Your task to perform on an android device: Open calendar and show me the fourth week of next month Image 0: 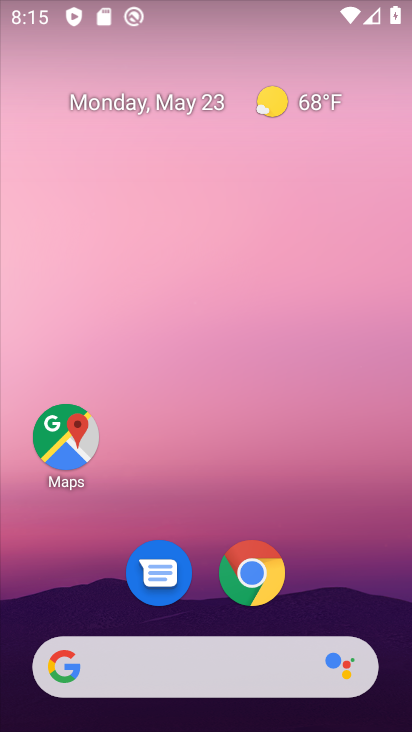
Step 0: drag from (199, 606) to (228, 45)
Your task to perform on an android device: Open calendar and show me the fourth week of next month Image 1: 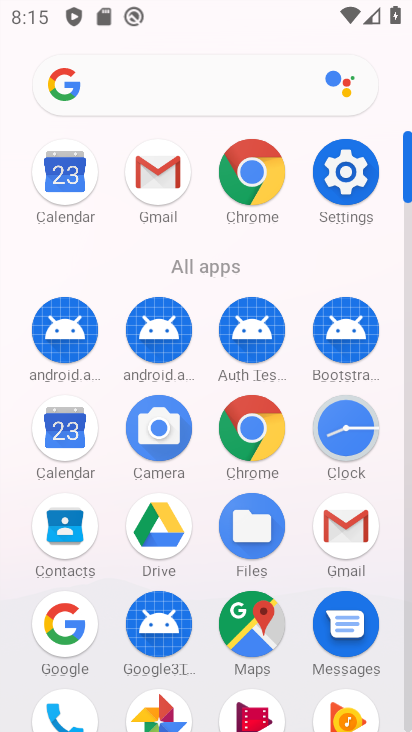
Step 1: click (59, 431)
Your task to perform on an android device: Open calendar and show me the fourth week of next month Image 2: 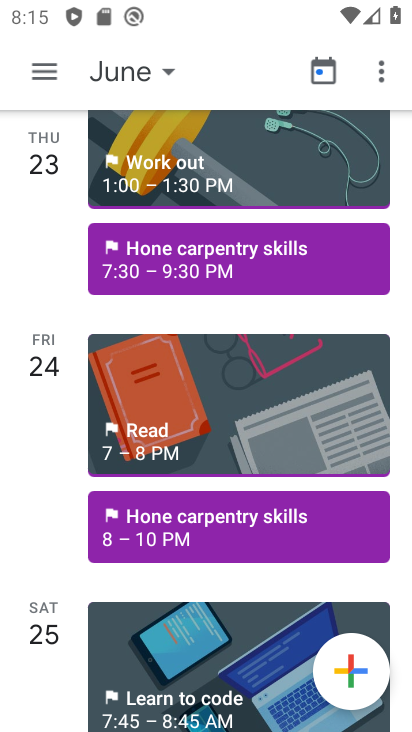
Step 2: click (166, 69)
Your task to perform on an android device: Open calendar and show me the fourth week of next month Image 3: 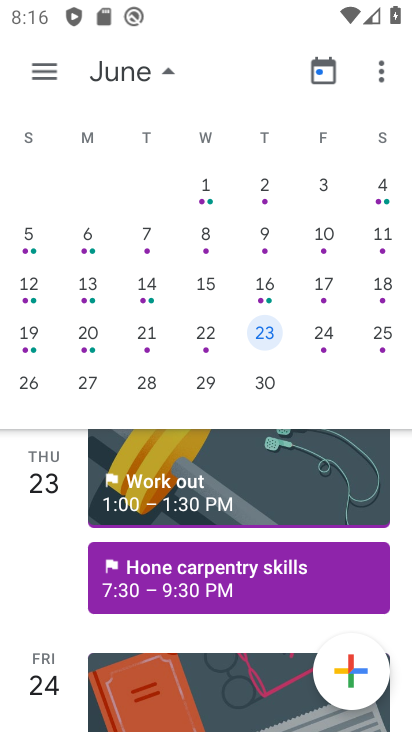
Step 3: click (25, 332)
Your task to perform on an android device: Open calendar and show me the fourth week of next month Image 4: 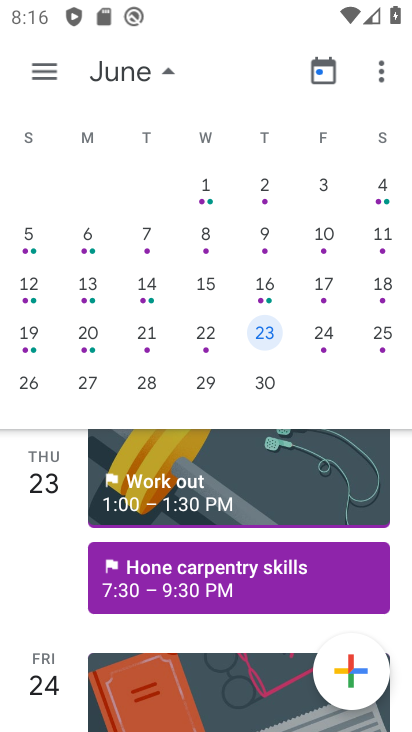
Step 4: click (30, 334)
Your task to perform on an android device: Open calendar and show me the fourth week of next month Image 5: 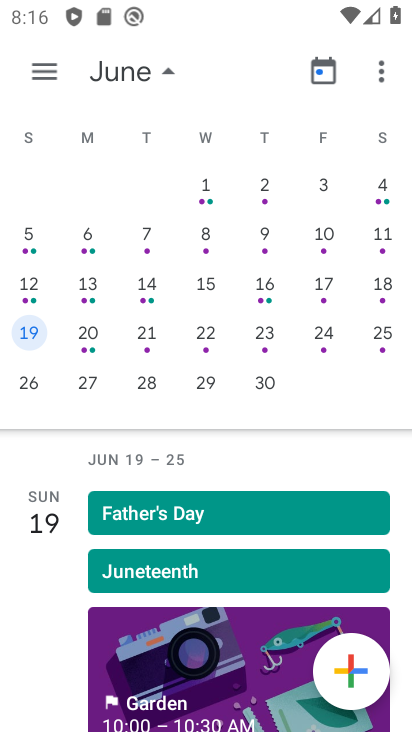
Step 5: click (172, 71)
Your task to perform on an android device: Open calendar and show me the fourth week of next month Image 6: 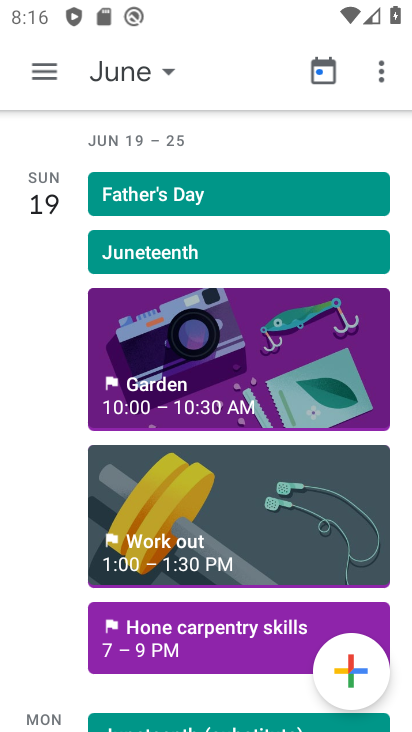
Step 6: task complete